Your task to perform on an android device: turn off smart reply in the gmail app Image 0: 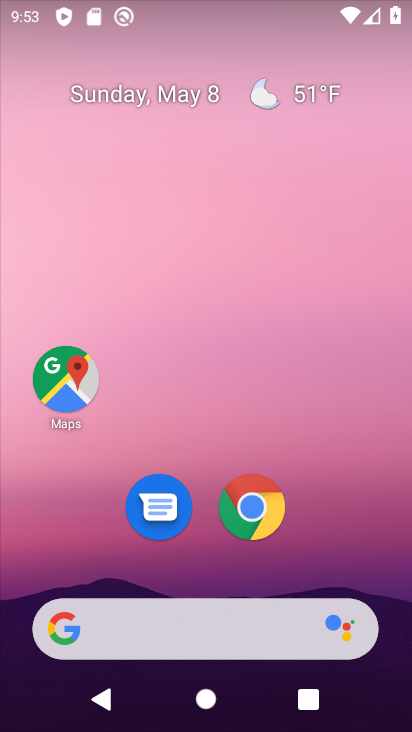
Step 0: press home button
Your task to perform on an android device: turn off smart reply in the gmail app Image 1: 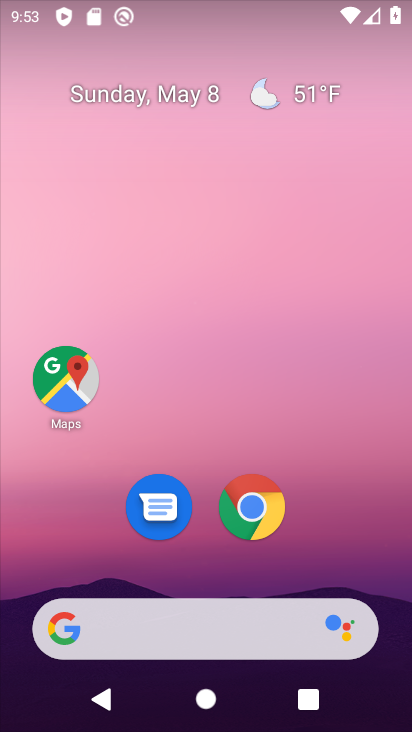
Step 1: drag from (210, 566) to (218, 82)
Your task to perform on an android device: turn off smart reply in the gmail app Image 2: 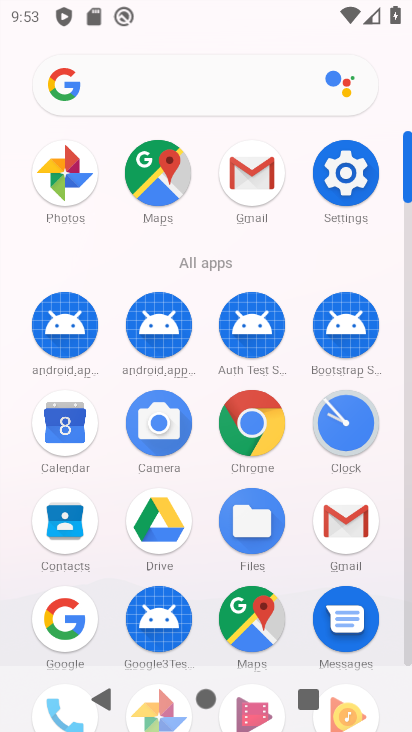
Step 2: click (241, 161)
Your task to perform on an android device: turn off smart reply in the gmail app Image 3: 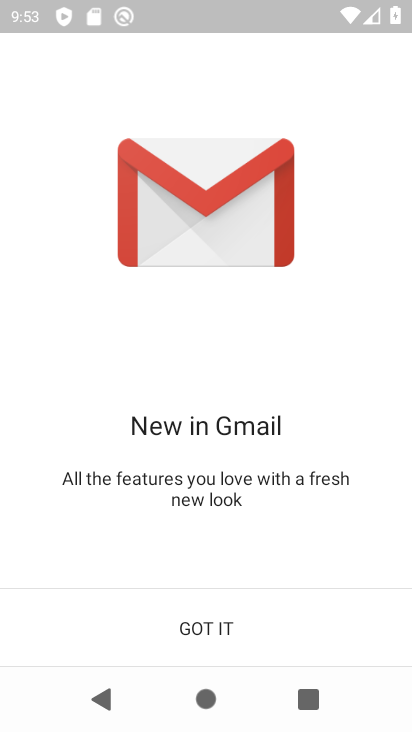
Step 3: click (203, 640)
Your task to perform on an android device: turn off smart reply in the gmail app Image 4: 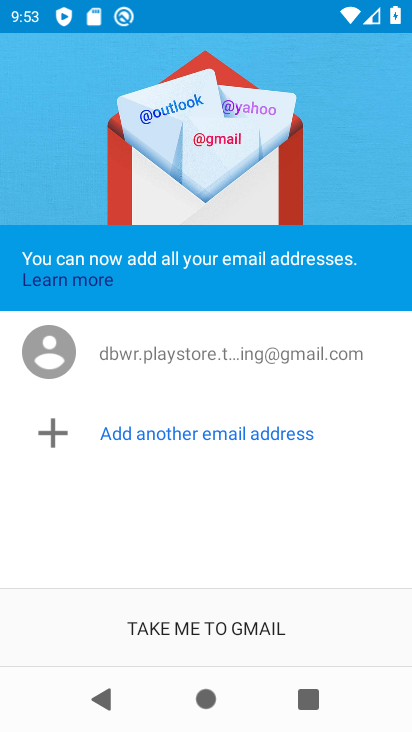
Step 4: click (204, 643)
Your task to perform on an android device: turn off smart reply in the gmail app Image 5: 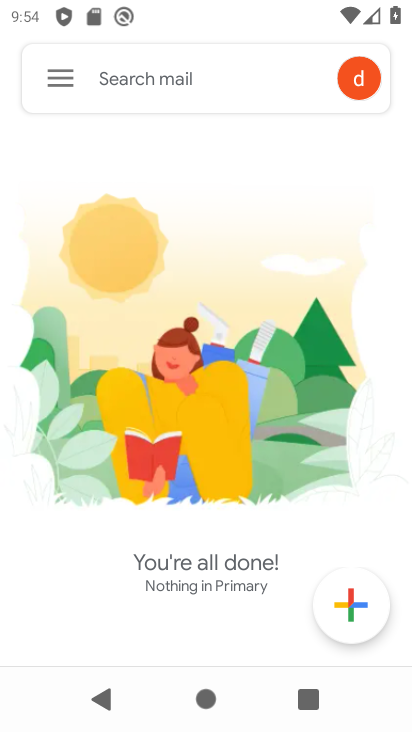
Step 5: click (57, 77)
Your task to perform on an android device: turn off smart reply in the gmail app Image 6: 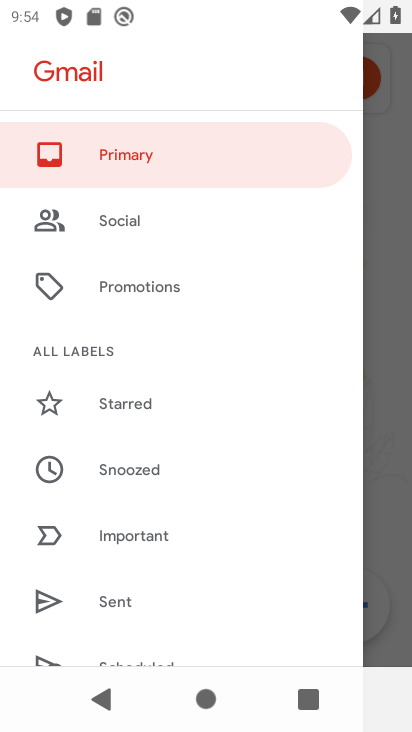
Step 6: drag from (179, 619) to (201, 111)
Your task to perform on an android device: turn off smart reply in the gmail app Image 7: 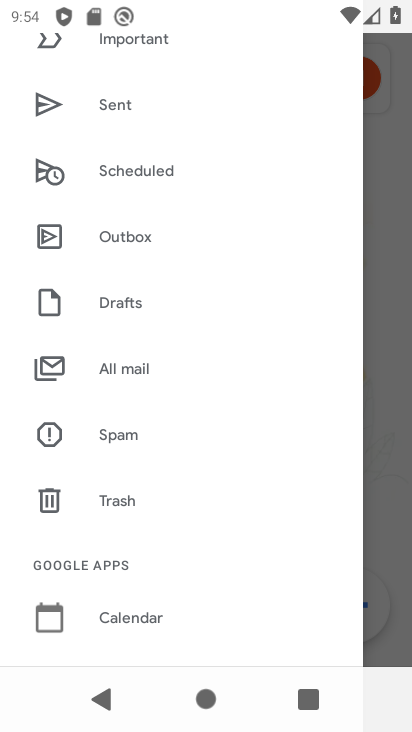
Step 7: drag from (166, 622) to (204, 31)
Your task to perform on an android device: turn off smart reply in the gmail app Image 8: 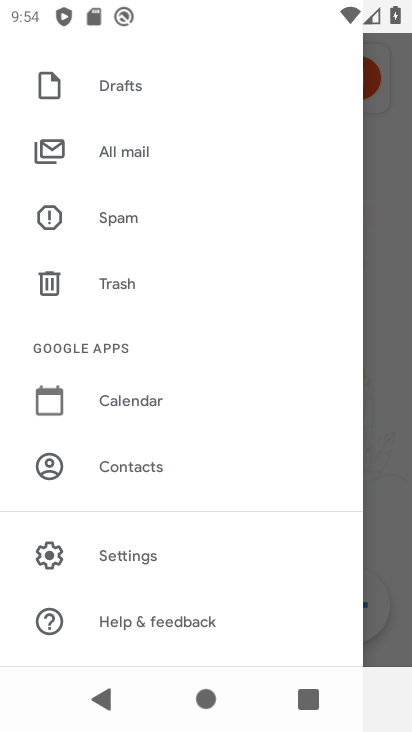
Step 8: click (161, 558)
Your task to perform on an android device: turn off smart reply in the gmail app Image 9: 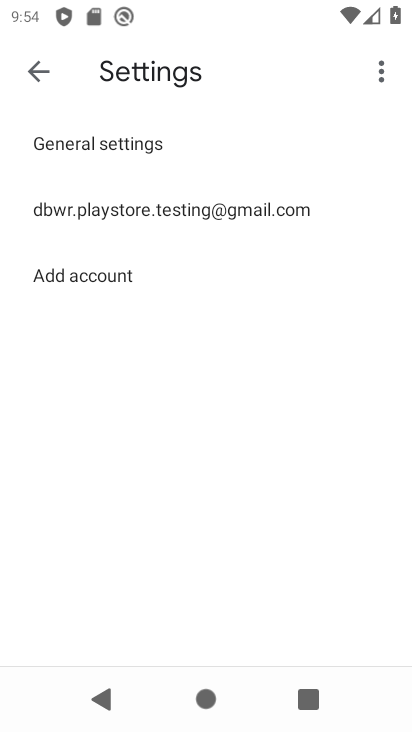
Step 9: click (212, 206)
Your task to perform on an android device: turn off smart reply in the gmail app Image 10: 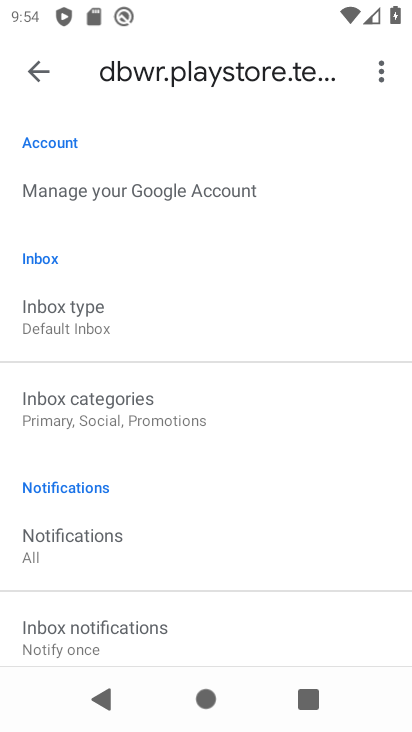
Step 10: drag from (185, 627) to (212, 51)
Your task to perform on an android device: turn off smart reply in the gmail app Image 11: 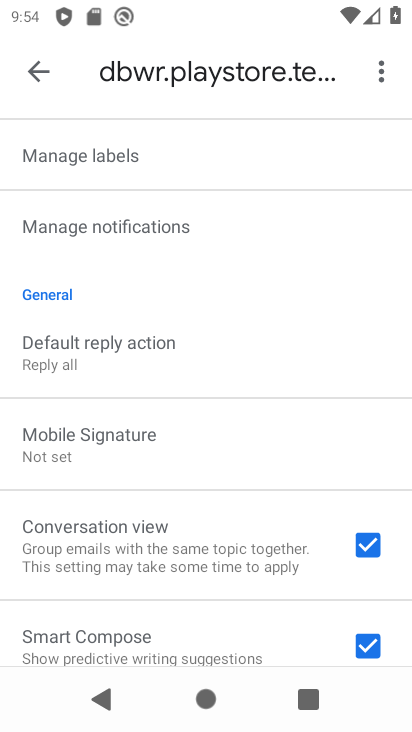
Step 11: drag from (216, 621) to (221, 258)
Your task to perform on an android device: turn off smart reply in the gmail app Image 12: 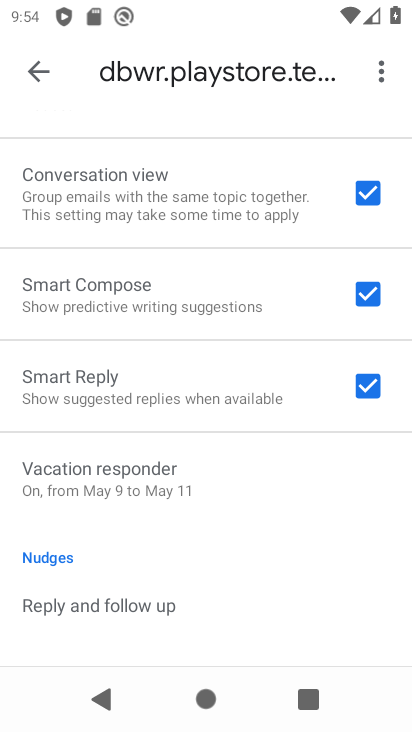
Step 12: click (368, 378)
Your task to perform on an android device: turn off smart reply in the gmail app Image 13: 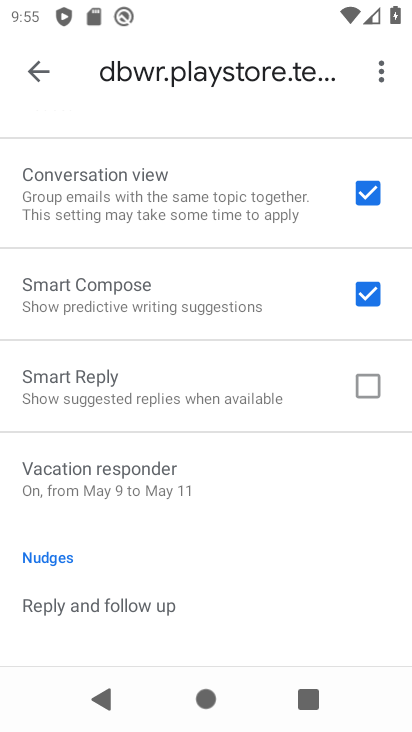
Step 13: task complete